Your task to perform on an android device: Open Google Chrome and open the bookmarks view Image 0: 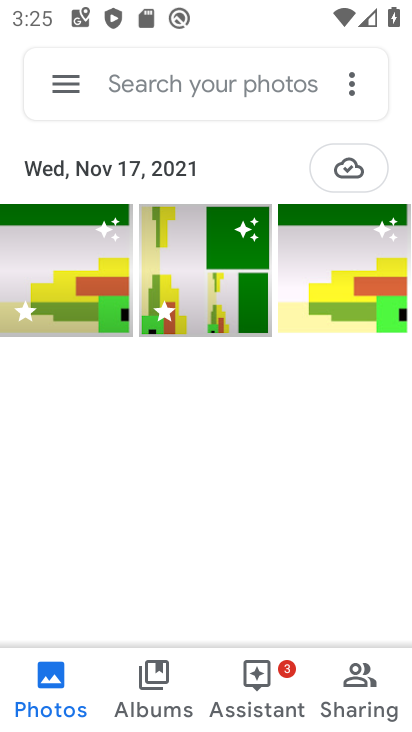
Step 0: press home button
Your task to perform on an android device: Open Google Chrome and open the bookmarks view Image 1: 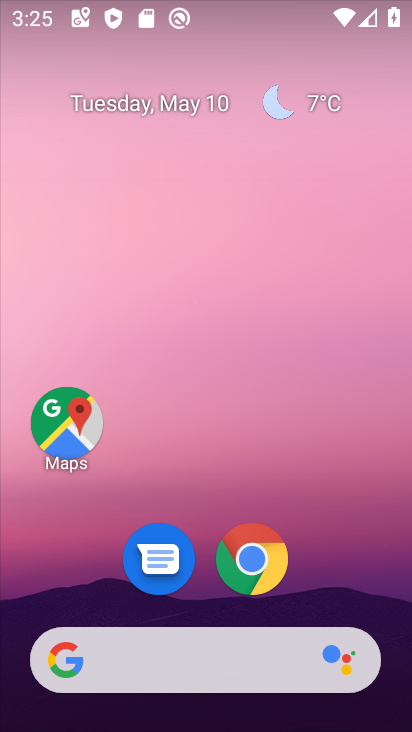
Step 1: click (248, 568)
Your task to perform on an android device: Open Google Chrome and open the bookmarks view Image 2: 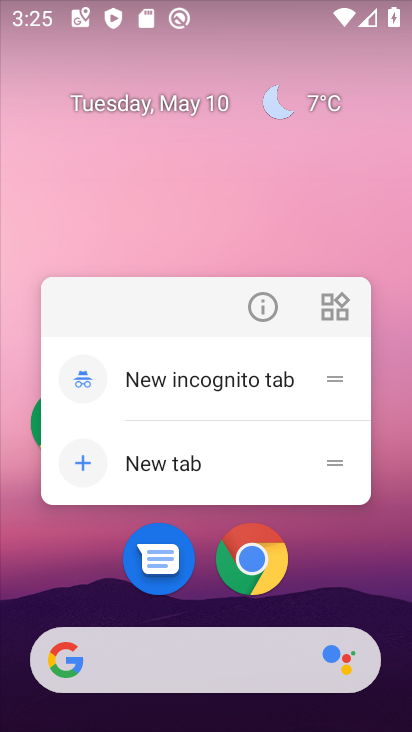
Step 2: click (252, 582)
Your task to perform on an android device: Open Google Chrome and open the bookmarks view Image 3: 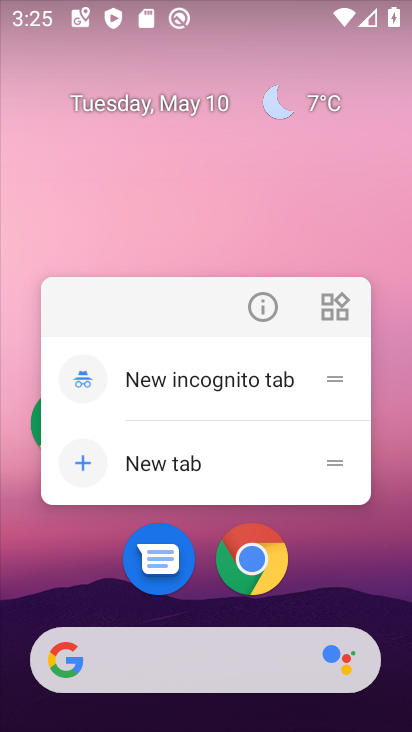
Step 3: click (267, 580)
Your task to perform on an android device: Open Google Chrome and open the bookmarks view Image 4: 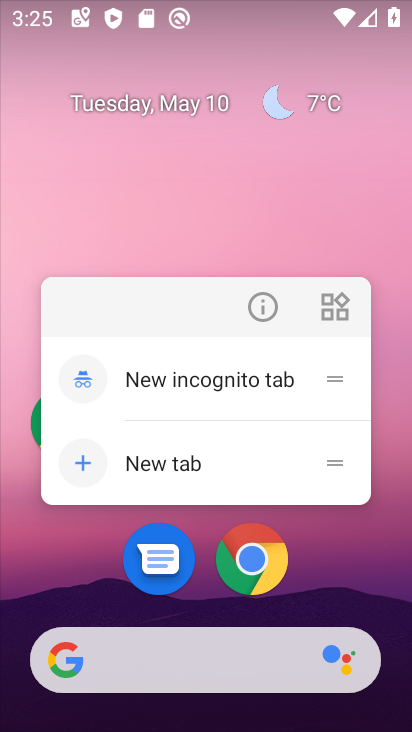
Step 4: click (265, 582)
Your task to perform on an android device: Open Google Chrome and open the bookmarks view Image 5: 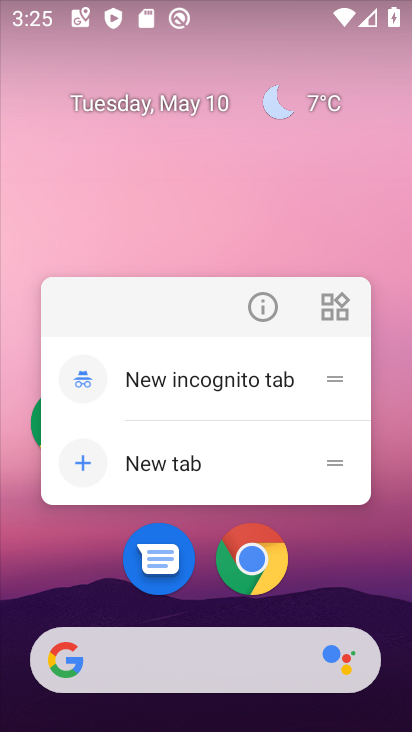
Step 5: click (245, 586)
Your task to perform on an android device: Open Google Chrome and open the bookmarks view Image 6: 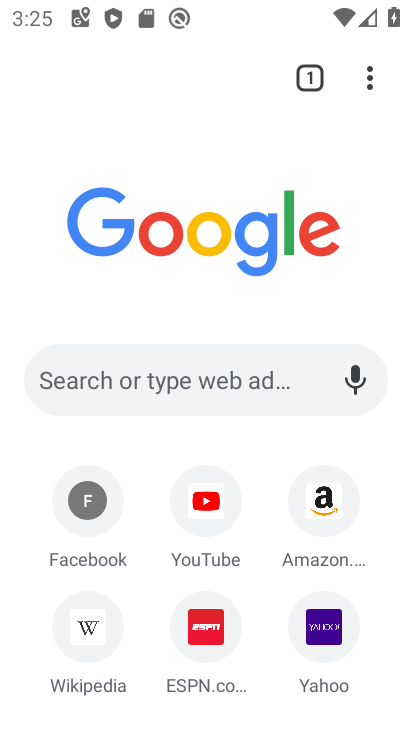
Step 6: task complete